Your task to perform on an android device: Go to Android settings Image 0: 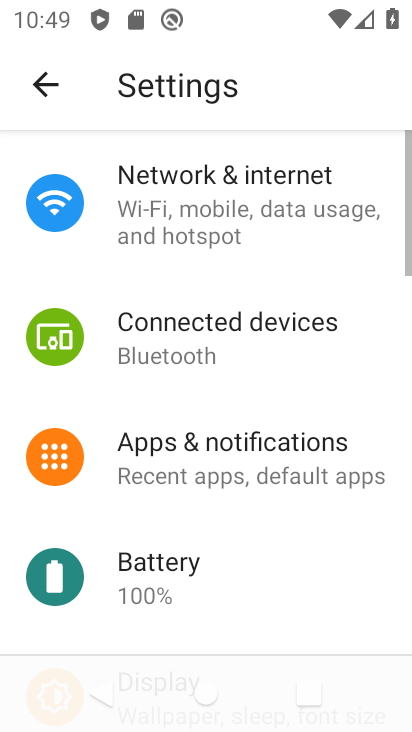
Step 0: task complete